Your task to perform on an android device: turn on the 12-hour format for clock Image 0: 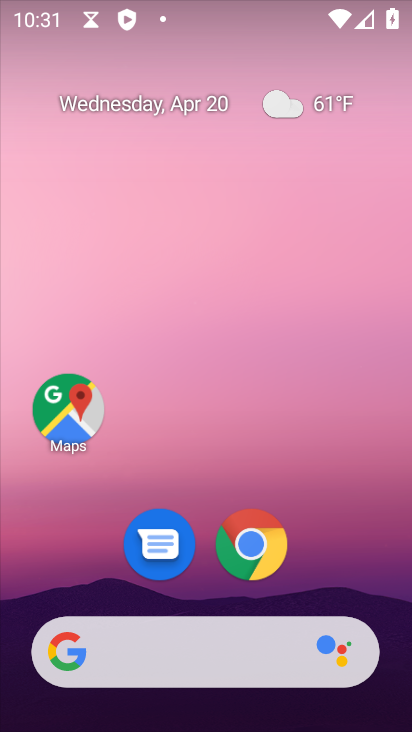
Step 0: drag from (171, 650) to (340, 2)
Your task to perform on an android device: turn on the 12-hour format for clock Image 1: 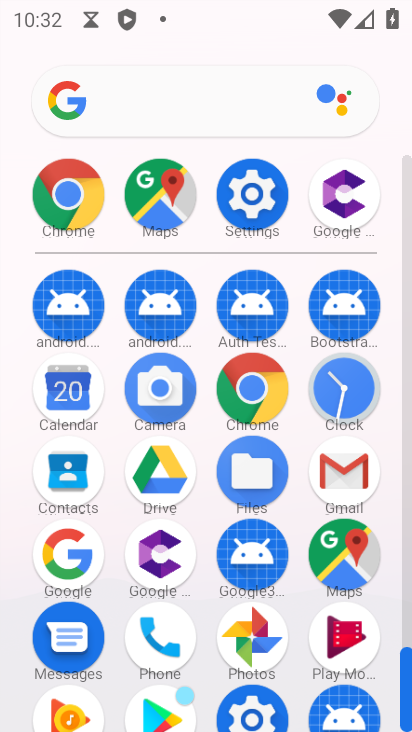
Step 1: click (345, 409)
Your task to perform on an android device: turn on the 12-hour format for clock Image 2: 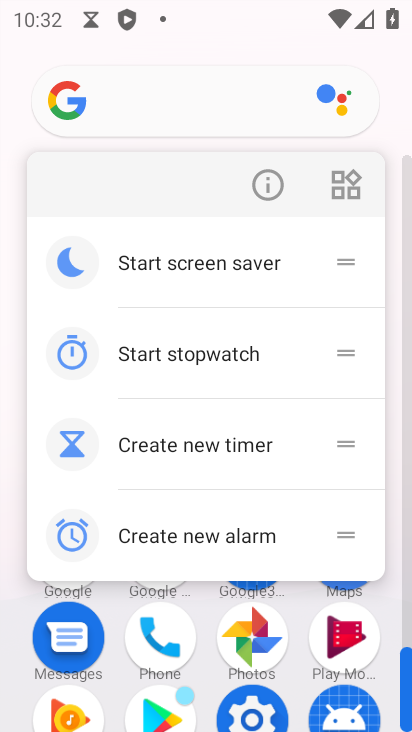
Step 2: drag from (164, 672) to (323, 260)
Your task to perform on an android device: turn on the 12-hour format for clock Image 3: 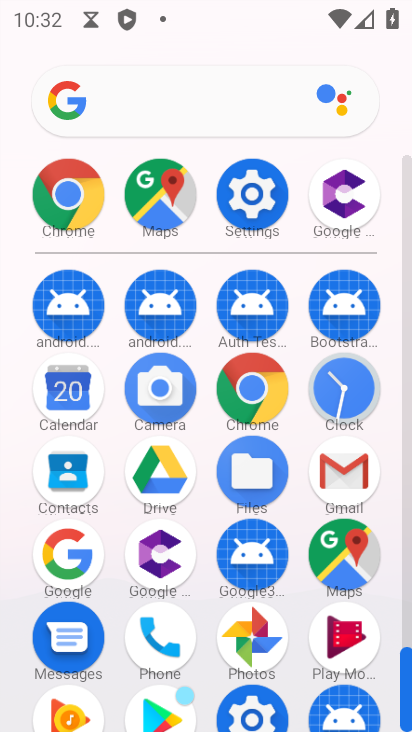
Step 3: click (349, 400)
Your task to perform on an android device: turn on the 12-hour format for clock Image 4: 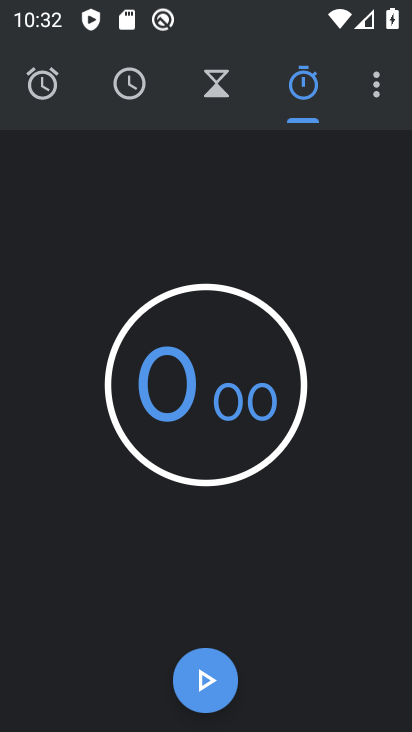
Step 4: click (372, 91)
Your task to perform on an android device: turn on the 12-hour format for clock Image 5: 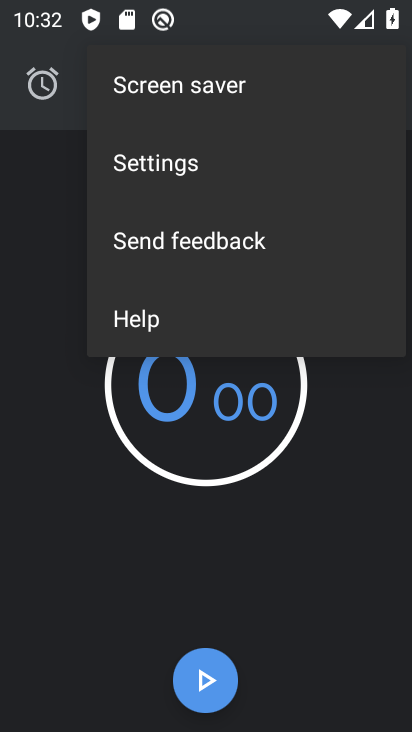
Step 5: click (175, 167)
Your task to perform on an android device: turn on the 12-hour format for clock Image 6: 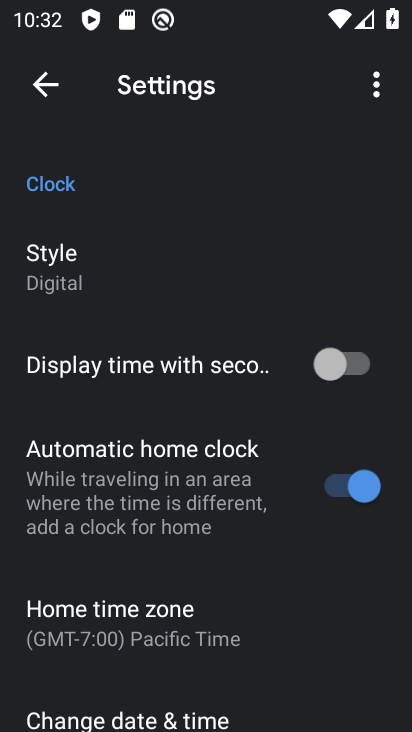
Step 6: drag from (183, 651) to (326, 244)
Your task to perform on an android device: turn on the 12-hour format for clock Image 7: 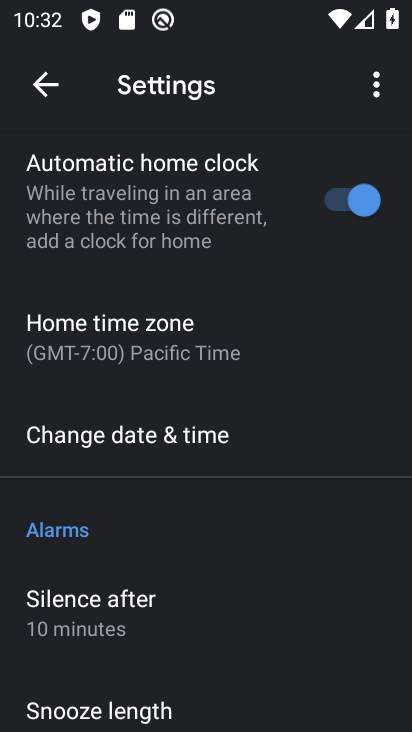
Step 7: click (188, 432)
Your task to perform on an android device: turn on the 12-hour format for clock Image 8: 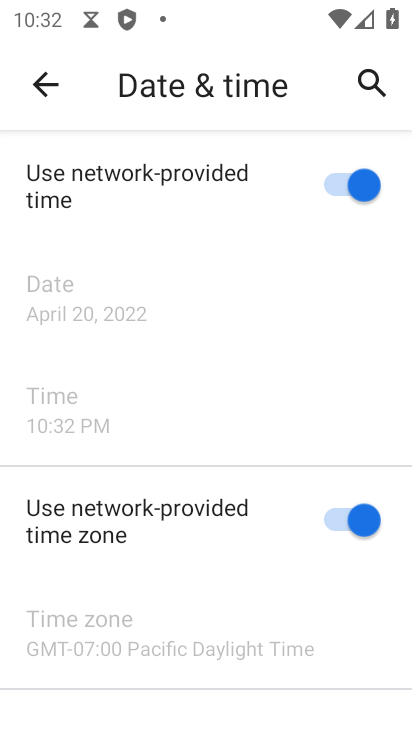
Step 8: task complete